Your task to perform on an android device: turn on location history Image 0: 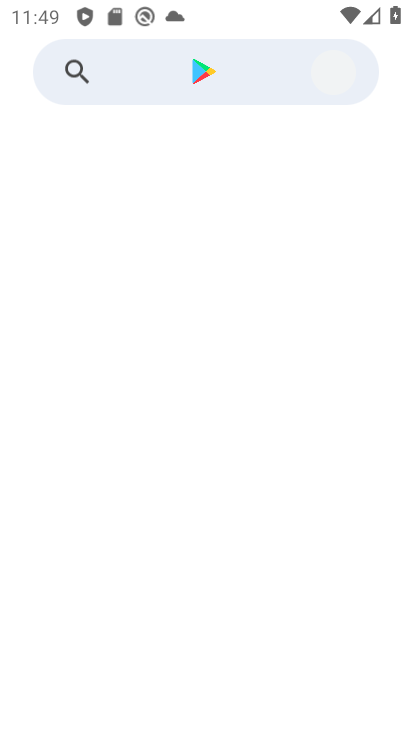
Step 0: press home button
Your task to perform on an android device: turn on location history Image 1: 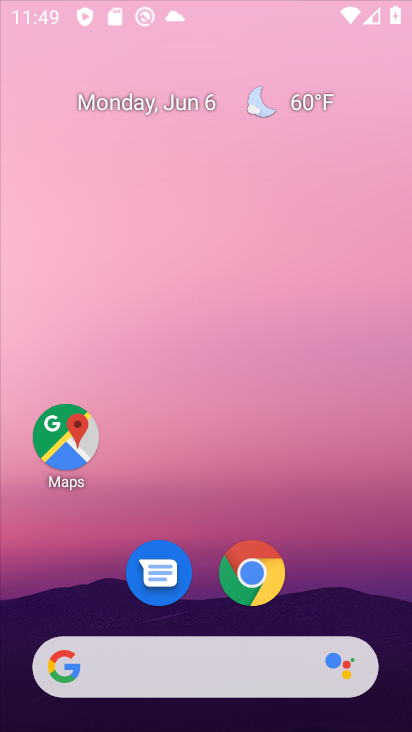
Step 1: press home button
Your task to perform on an android device: turn on location history Image 2: 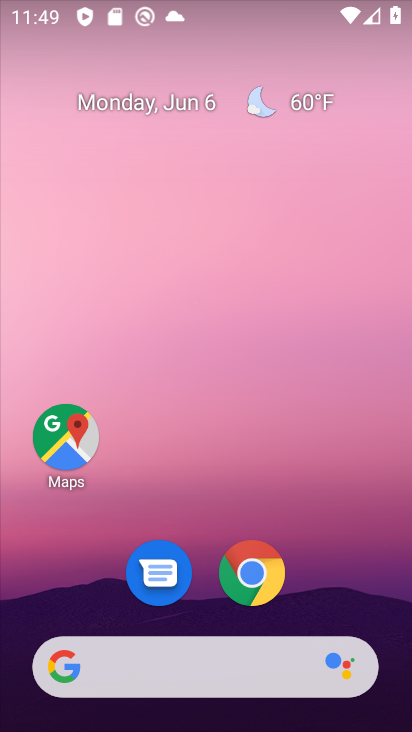
Step 2: click (46, 439)
Your task to perform on an android device: turn on location history Image 3: 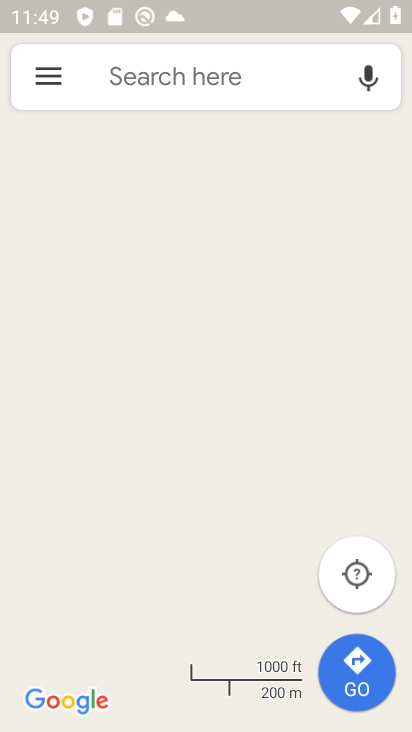
Step 3: click (56, 67)
Your task to perform on an android device: turn on location history Image 4: 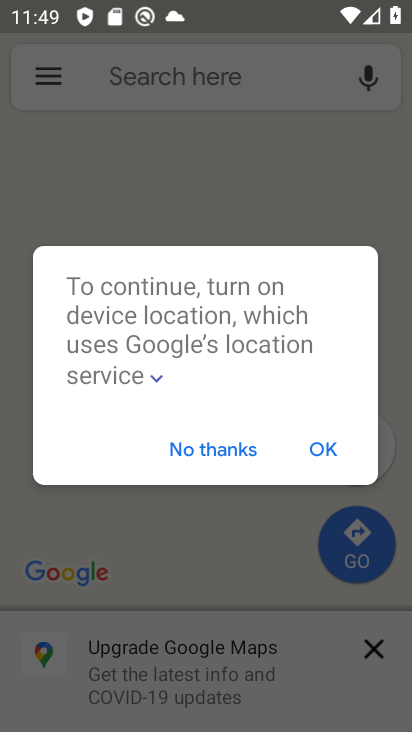
Step 4: click (181, 452)
Your task to perform on an android device: turn on location history Image 5: 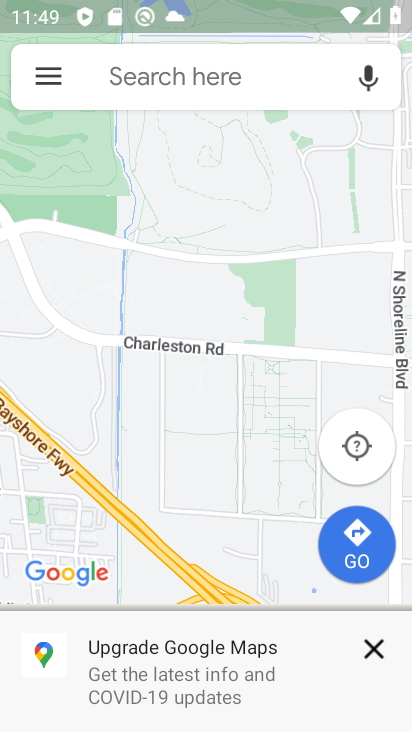
Step 5: click (53, 75)
Your task to perform on an android device: turn on location history Image 6: 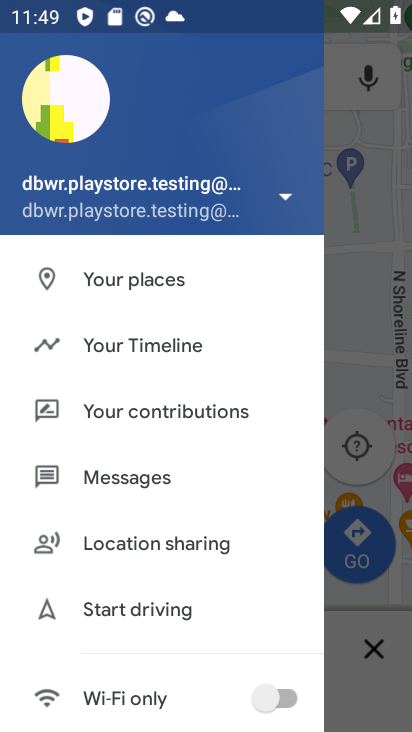
Step 6: click (140, 340)
Your task to perform on an android device: turn on location history Image 7: 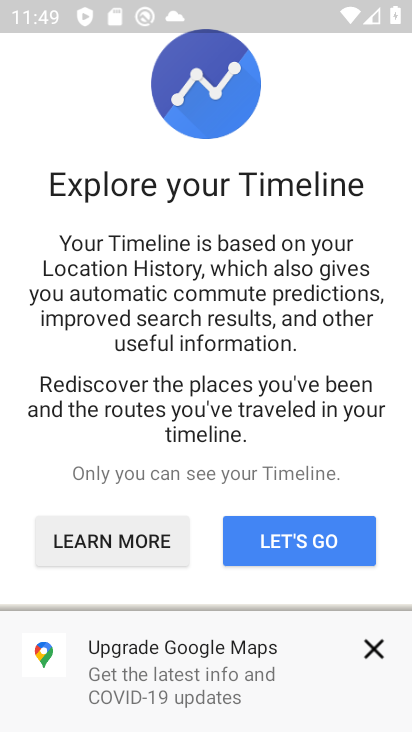
Step 7: drag from (174, 555) to (211, 264)
Your task to perform on an android device: turn on location history Image 8: 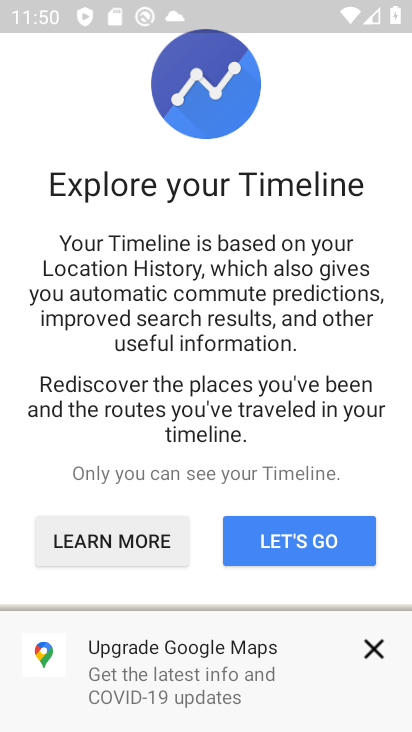
Step 8: click (381, 656)
Your task to perform on an android device: turn on location history Image 9: 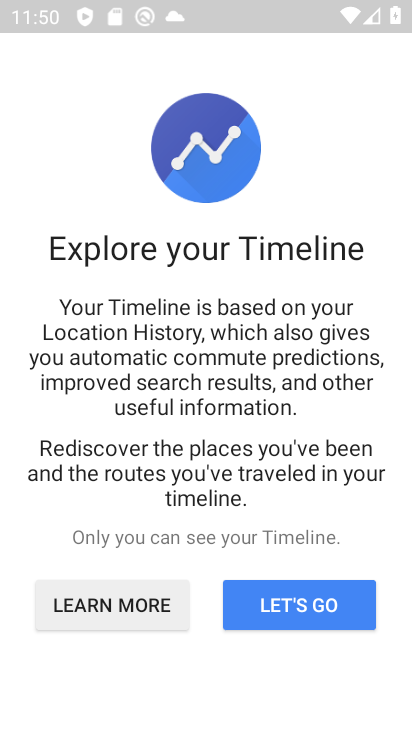
Step 9: click (280, 545)
Your task to perform on an android device: turn on location history Image 10: 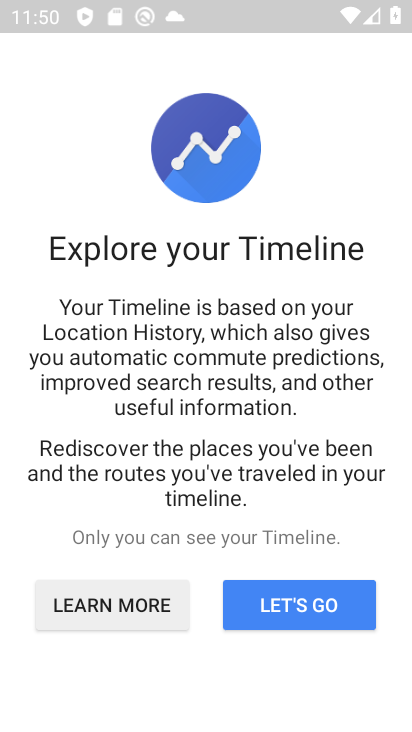
Step 10: click (289, 591)
Your task to perform on an android device: turn on location history Image 11: 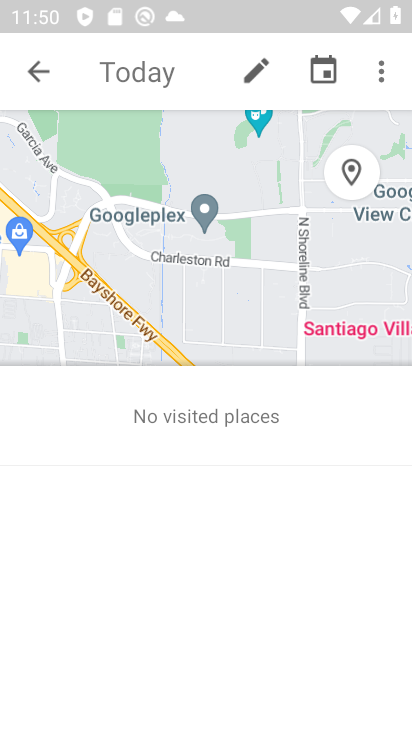
Step 11: click (376, 75)
Your task to perform on an android device: turn on location history Image 12: 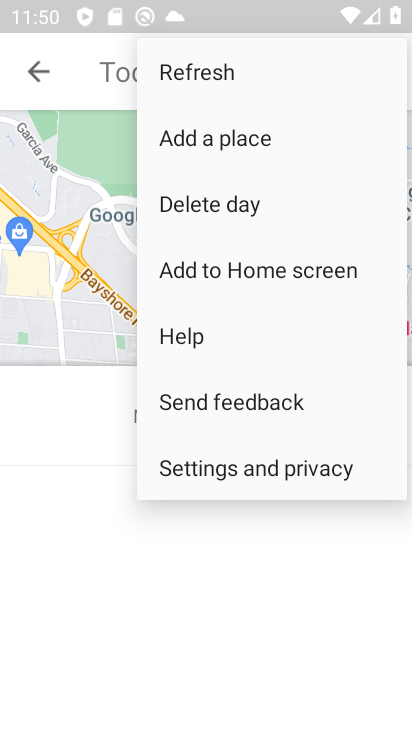
Step 12: click (295, 464)
Your task to perform on an android device: turn on location history Image 13: 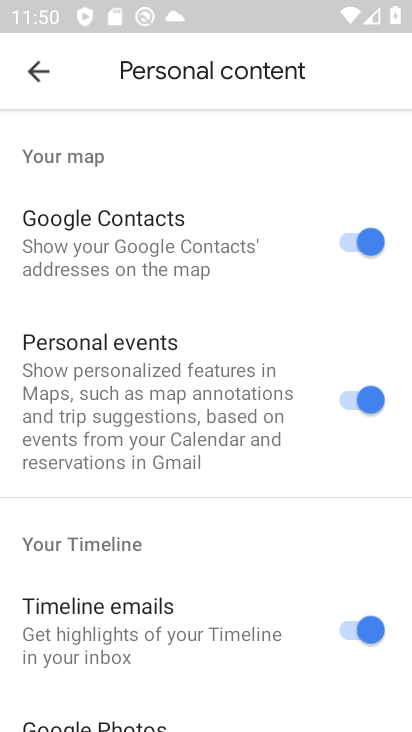
Step 13: drag from (281, 666) to (235, 375)
Your task to perform on an android device: turn on location history Image 14: 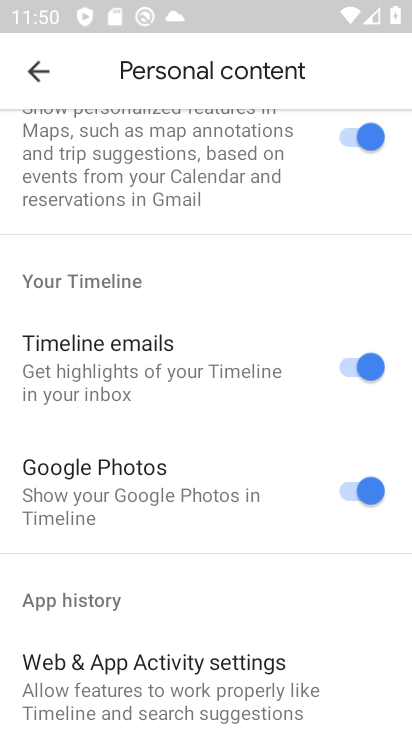
Step 14: drag from (245, 558) to (257, 108)
Your task to perform on an android device: turn on location history Image 15: 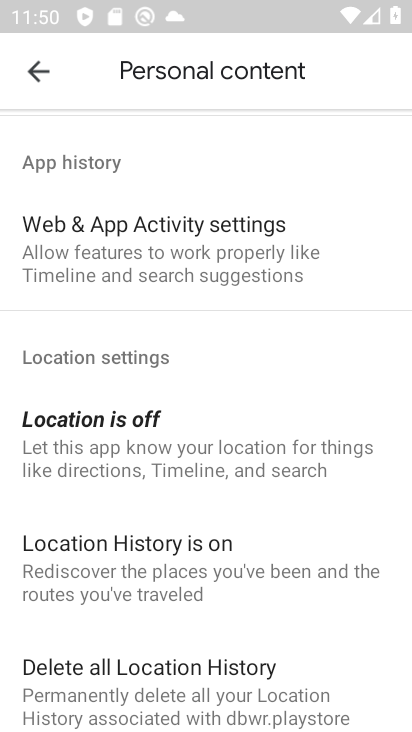
Step 15: click (202, 549)
Your task to perform on an android device: turn on location history Image 16: 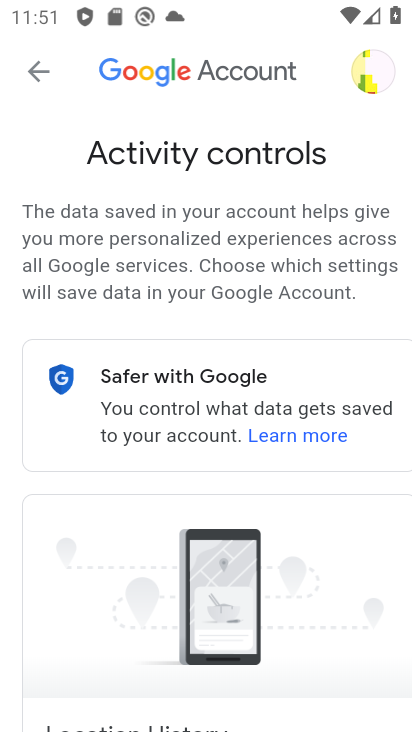
Step 16: drag from (376, 621) to (19, 196)
Your task to perform on an android device: turn on location history Image 17: 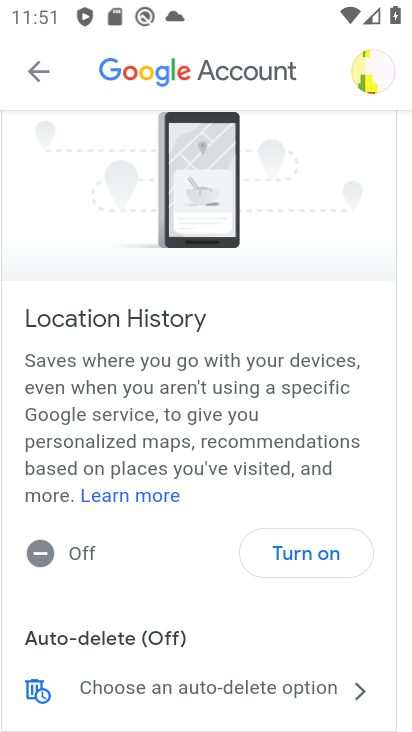
Step 17: click (300, 561)
Your task to perform on an android device: turn on location history Image 18: 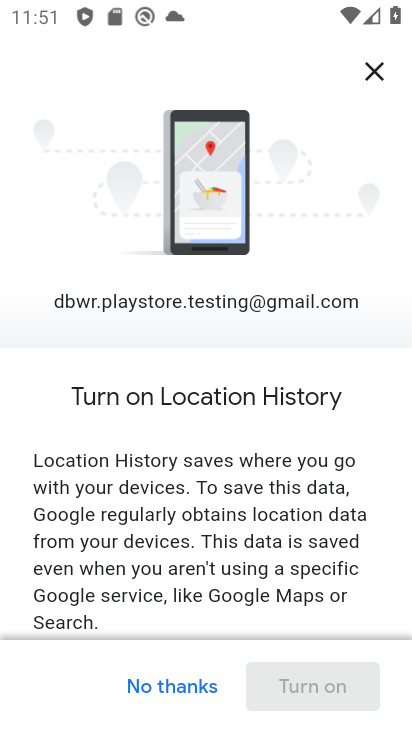
Step 18: drag from (299, 617) to (295, 206)
Your task to perform on an android device: turn on location history Image 19: 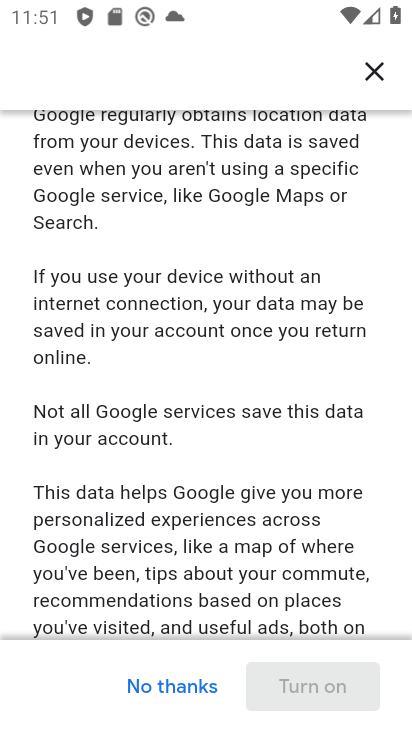
Step 19: drag from (335, 619) to (230, 32)
Your task to perform on an android device: turn on location history Image 20: 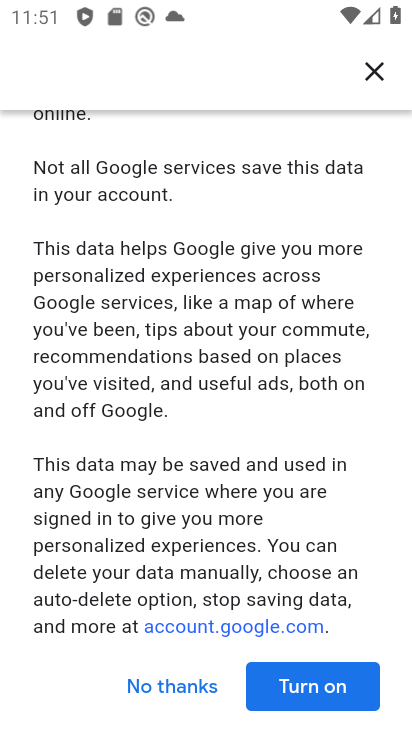
Step 20: click (308, 693)
Your task to perform on an android device: turn on location history Image 21: 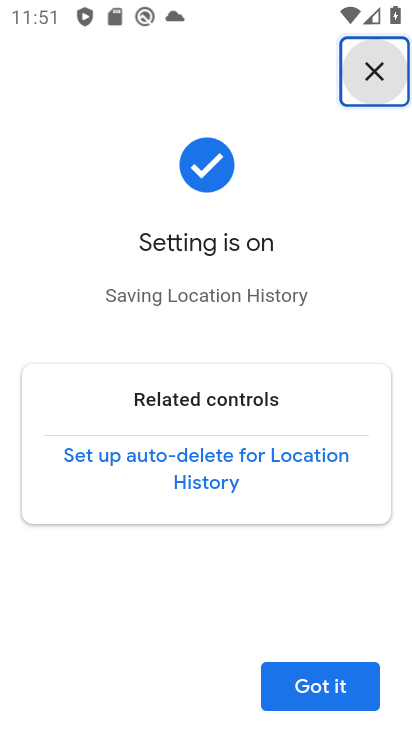
Step 21: click (300, 690)
Your task to perform on an android device: turn on location history Image 22: 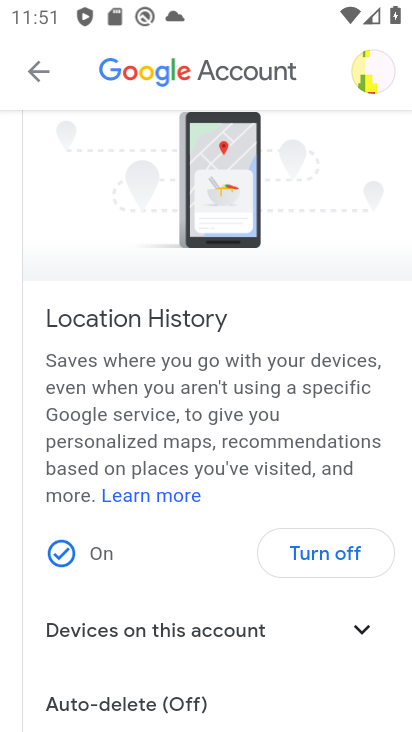
Step 22: task complete